Your task to perform on an android device: allow notifications from all sites in the chrome app Image 0: 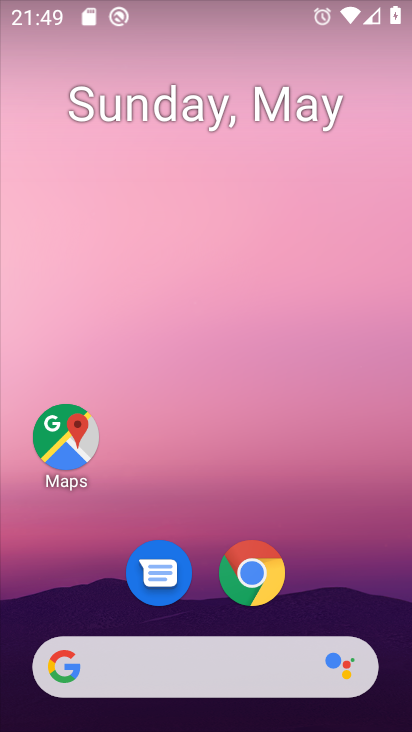
Step 0: click (257, 563)
Your task to perform on an android device: allow notifications from all sites in the chrome app Image 1: 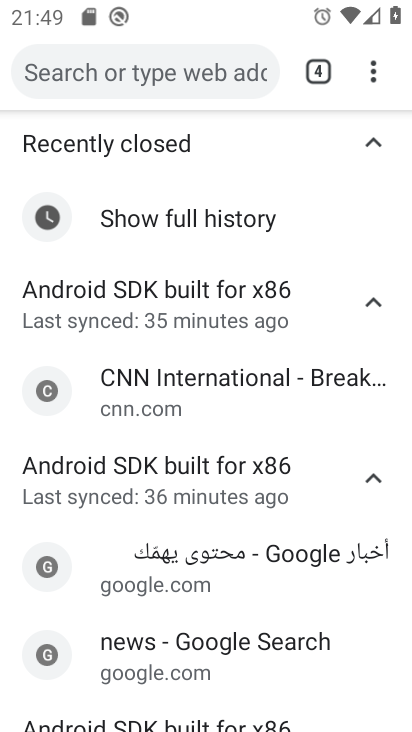
Step 1: click (368, 78)
Your task to perform on an android device: allow notifications from all sites in the chrome app Image 2: 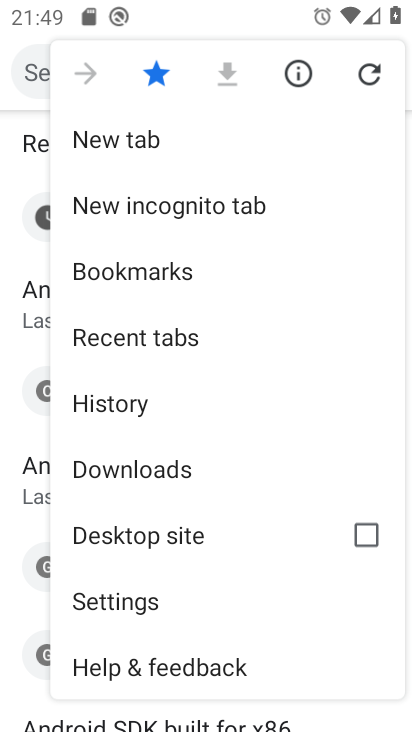
Step 2: click (190, 598)
Your task to perform on an android device: allow notifications from all sites in the chrome app Image 3: 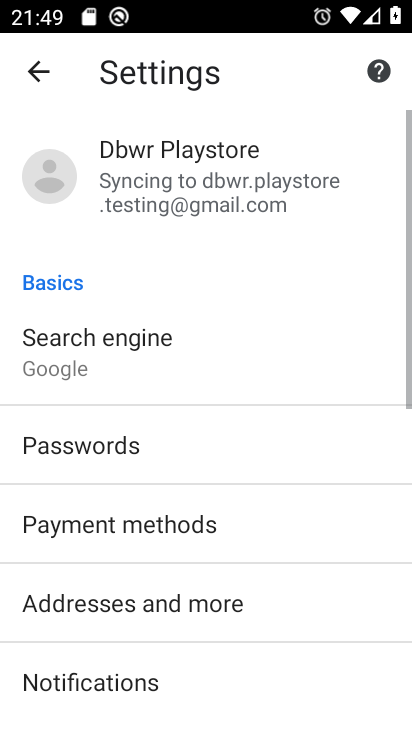
Step 3: drag from (279, 503) to (316, 153)
Your task to perform on an android device: allow notifications from all sites in the chrome app Image 4: 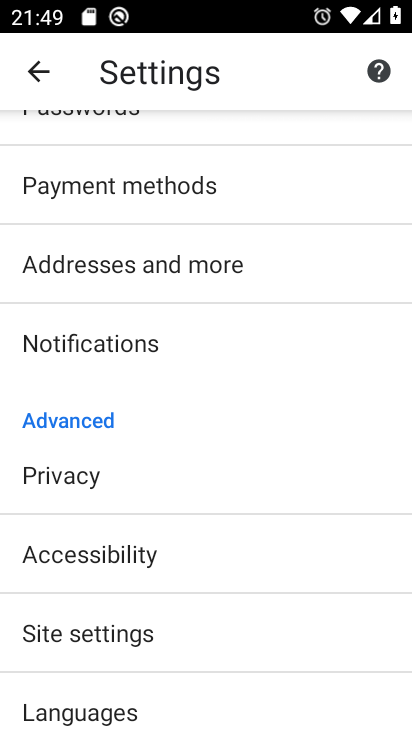
Step 4: click (269, 333)
Your task to perform on an android device: allow notifications from all sites in the chrome app Image 5: 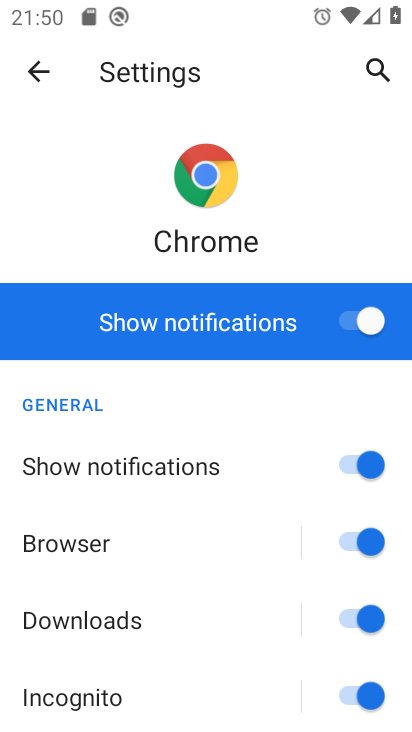
Step 5: task complete